Your task to perform on an android device: Open battery settings Image 0: 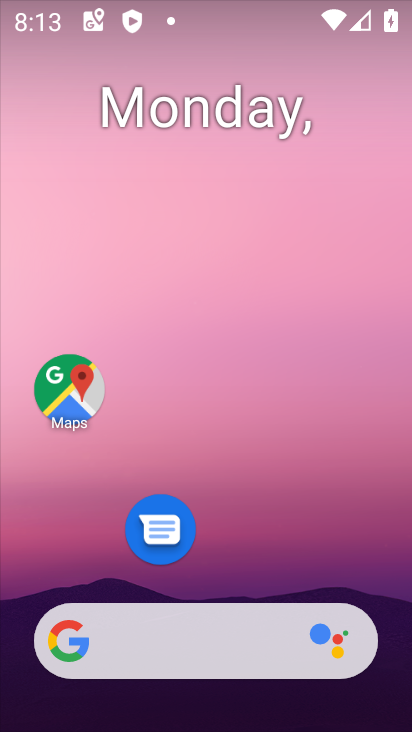
Step 0: drag from (218, 544) to (237, 204)
Your task to perform on an android device: Open battery settings Image 1: 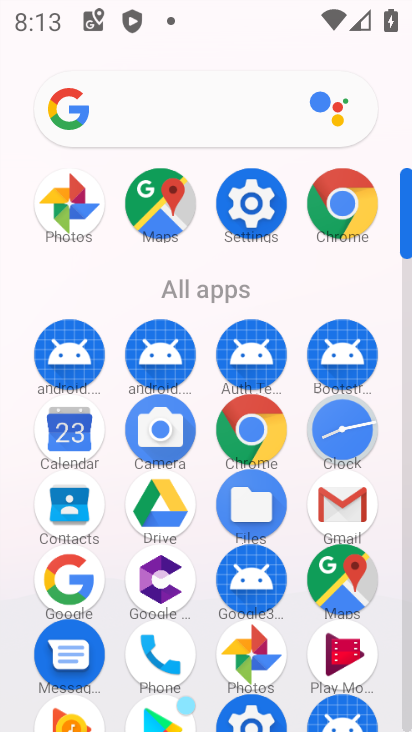
Step 1: click (237, 202)
Your task to perform on an android device: Open battery settings Image 2: 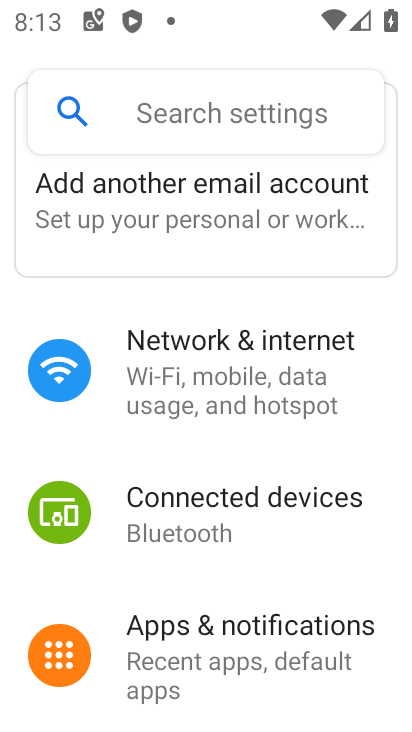
Step 2: drag from (288, 674) to (275, 324)
Your task to perform on an android device: Open battery settings Image 3: 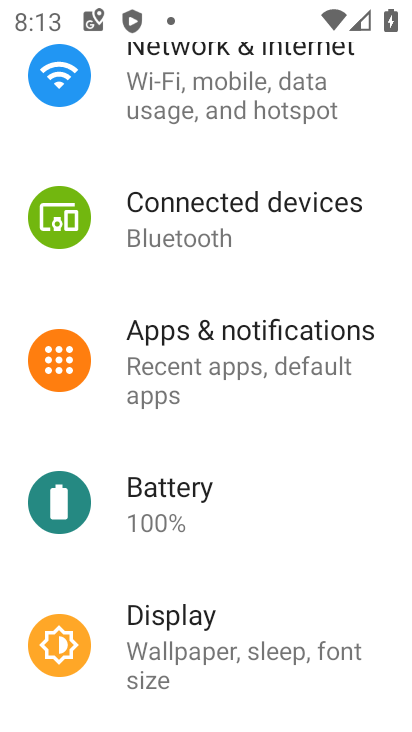
Step 3: click (233, 510)
Your task to perform on an android device: Open battery settings Image 4: 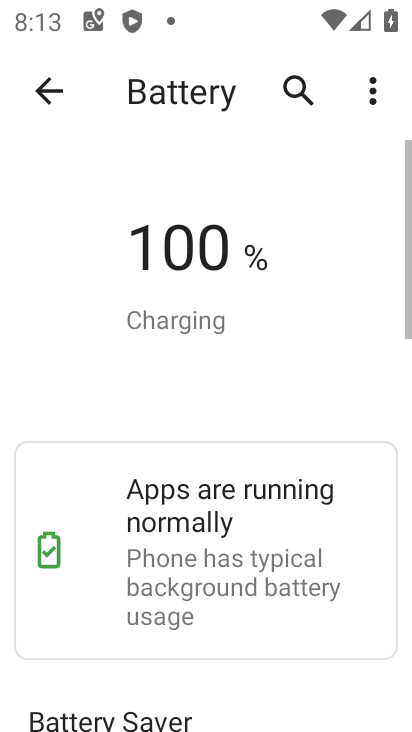
Step 4: task complete